Your task to perform on an android device: see creations saved in the google photos Image 0: 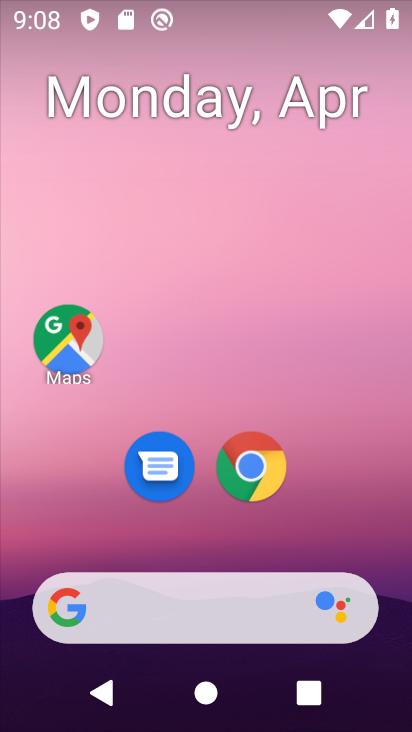
Step 0: drag from (235, 557) to (288, 178)
Your task to perform on an android device: see creations saved in the google photos Image 1: 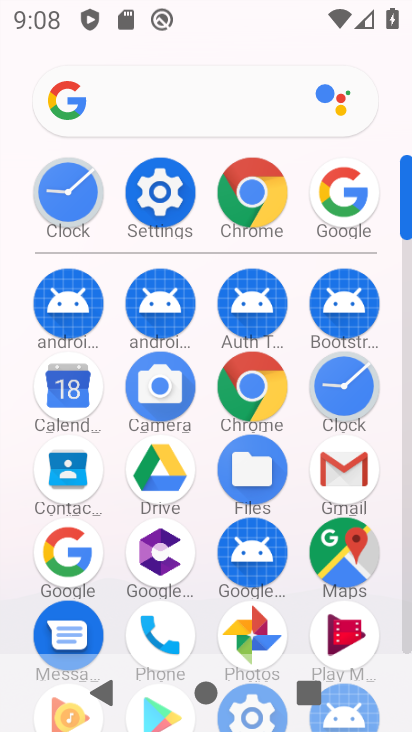
Step 1: drag from (201, 540) to (212, 405)
Your task to perform on an android device: see creations saved in the google photos Image 2: 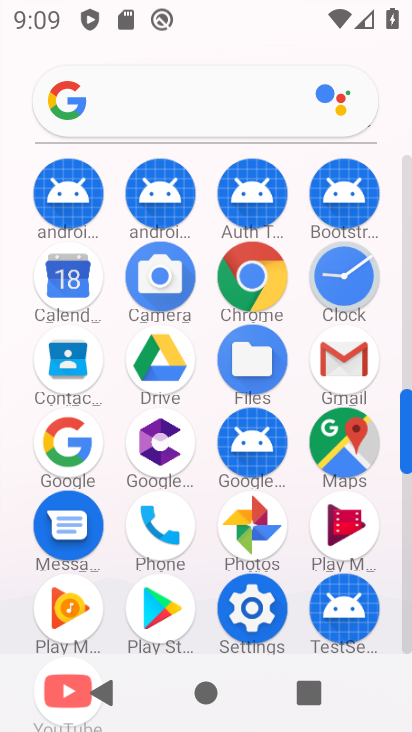
Step 2: click (345, 442)
Your task to perform on an android device: see creations saved in the google photos Image 3: 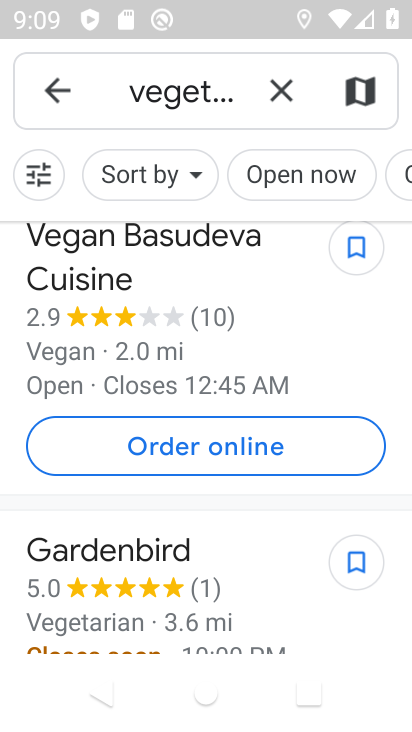
Step 3: press back button
Your task to perform on an android device: see creations saved in the google photos Image 4: 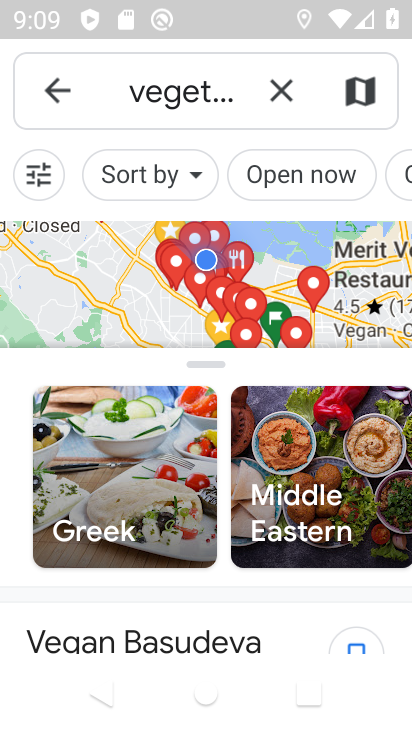
Step 4: press back button
Your task to perform on an android device: see creations saved in the google photos Image 5: 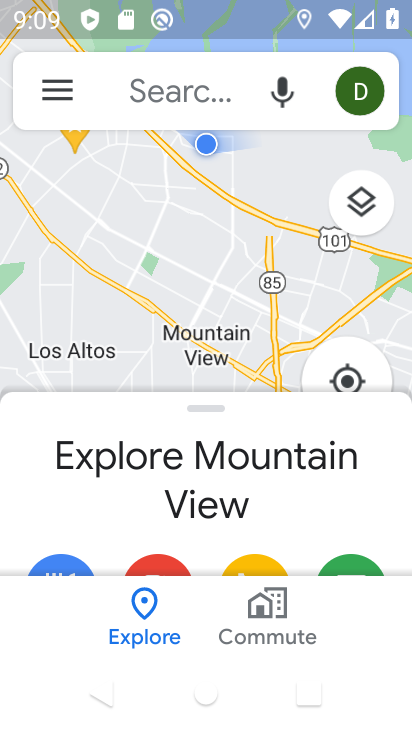
Step 5: press home button
Your task to perform on an android device: see creations saved in the google photos Image 6: 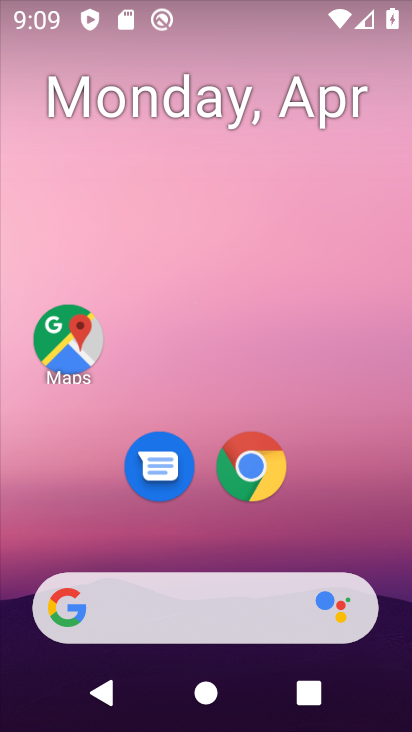
Step 6: drag from (204, 545) to (281, 187)
Your task to perform on an android device: see creations saved in the google photos Image 7: 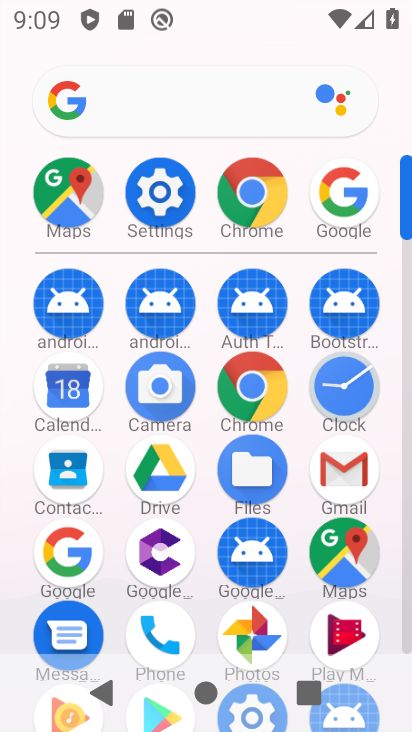
Step 7: drag from (198, 613) to (219, 408)
Your task to perform on an android device: see creations saved in the google photos Image 8: 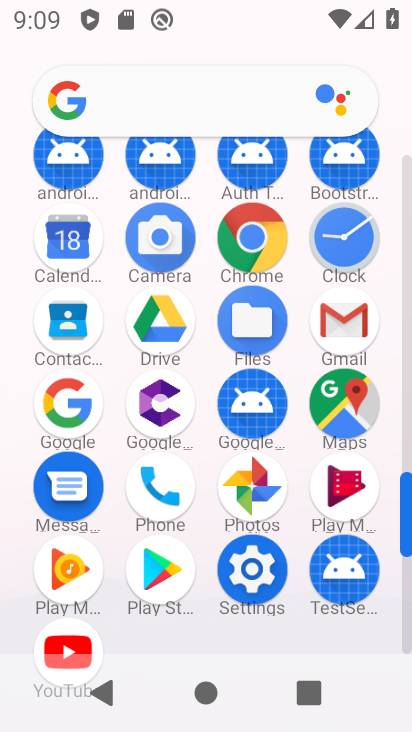
Step 8: click (255, 483)
Your task to perform on an android device: see creations saved in the google photos Image 9: 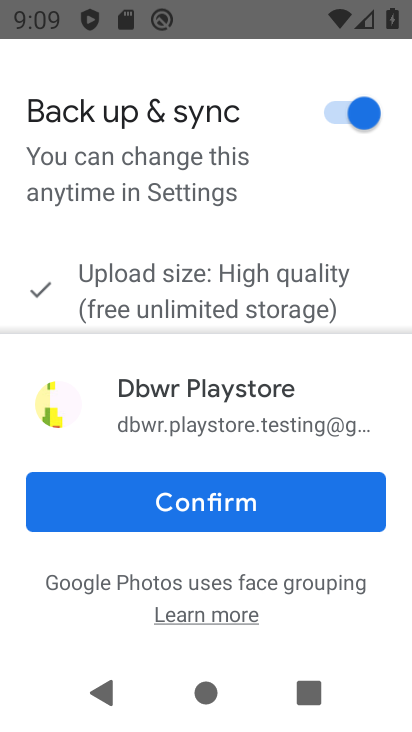
Step 9: click (206, 510)
Your task to perform on an android device: see creations saved in the google photos Image 10: 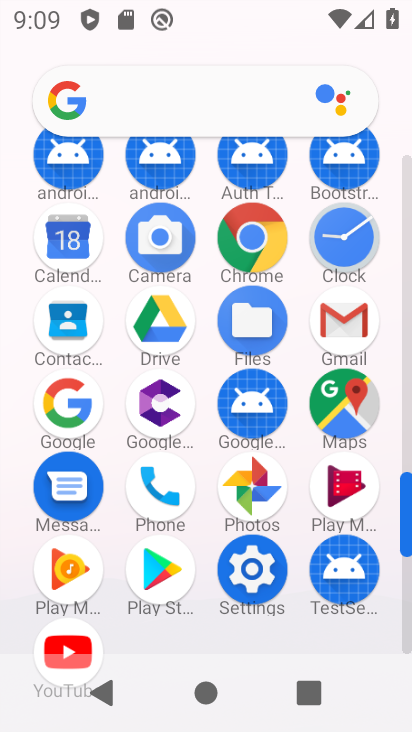
Step 10: click (254, 491)
Your task to perform on an android device: see creations saved in the google photos Image 11: 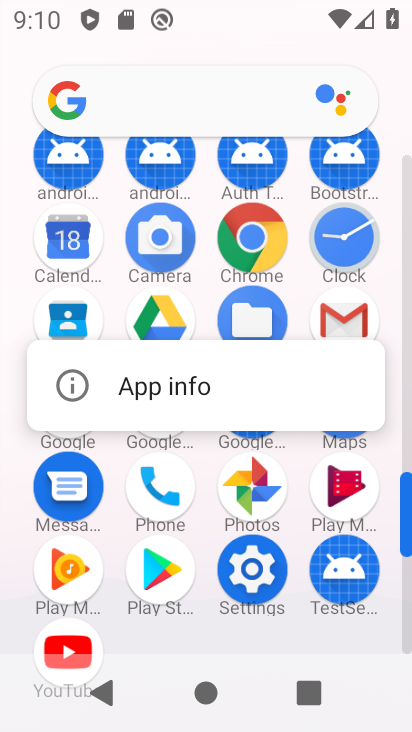
Step 11: click (253, 486)
Your task to perform on an android device: see creations saved in the google photos Image 12: 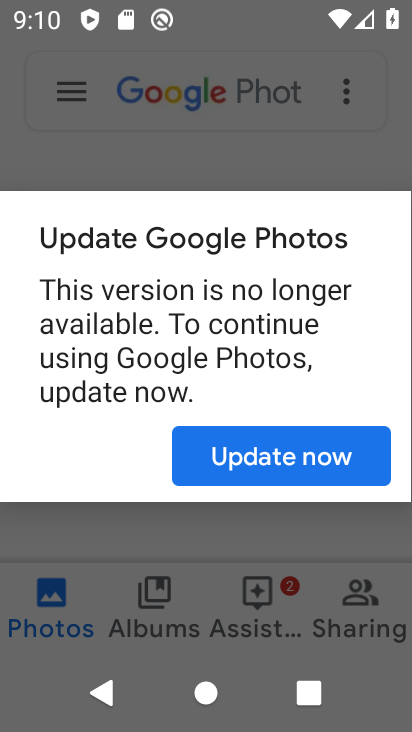
Step 12: click (202, 461)
Your task to perform on an android device: see creations saved in the google photos Image 13: 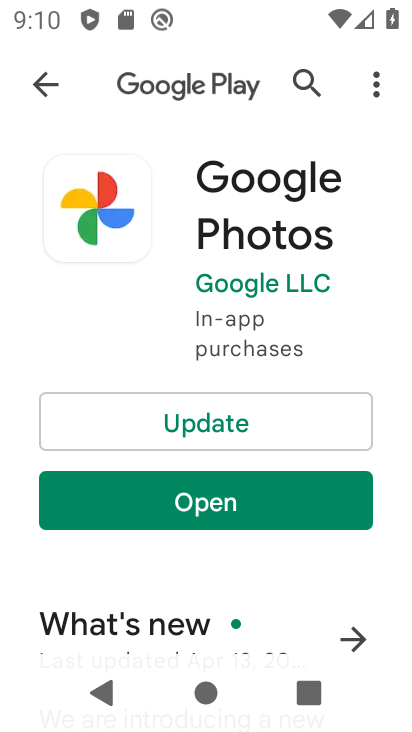
Step 13: click (206, 441)
Your task to perform on an android device: see creations saved in the google photos Image 14: 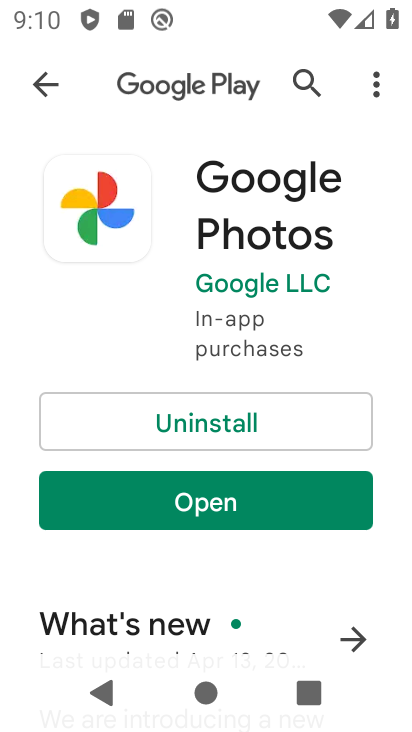
Step 14: click (200, 495)
Your task to perform on an android device: see creations saved in the google photos Image 15: 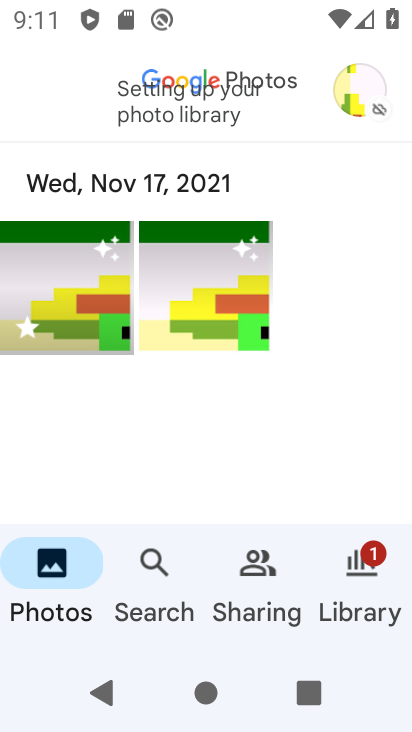
Step 15: click (362, 553)
Your task to perform on an android device: see creations saved in the google photos Image 16: 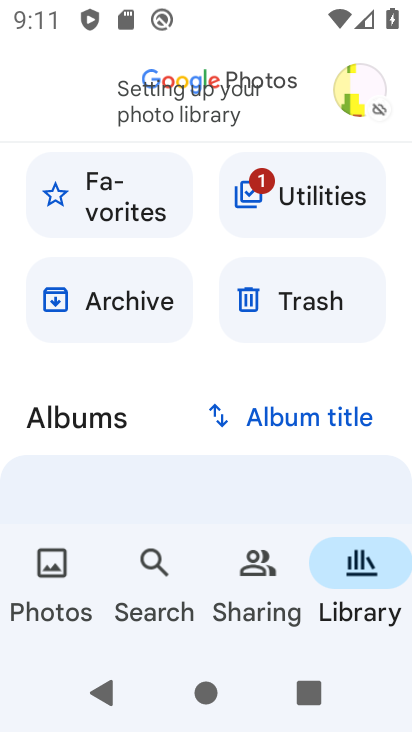
Step 16: task complete